Your task to perform on an android device: move an email to a new category in the gmail app Image 0: 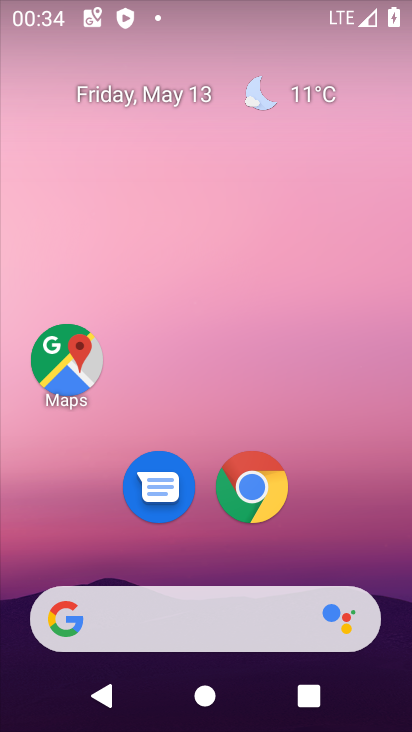
Step 0: drag from (157, 567) to (238, 61)
Your task to perform on an android device: move an email to a new category in the gmail app Image 1: 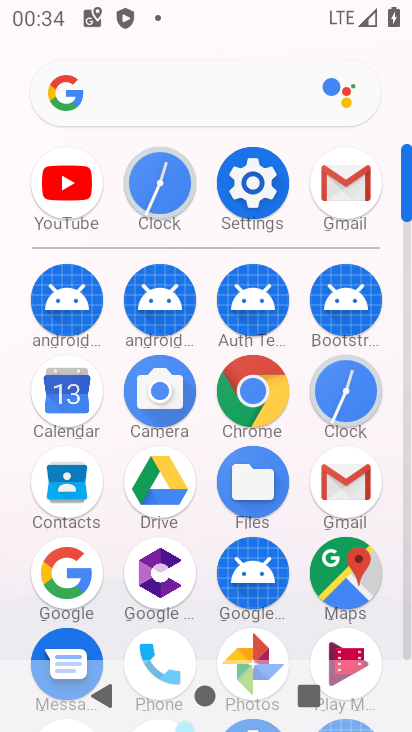
Step 1: click (334, 205)
Your task to perform on an android device: move an email to a new category in the gmail app Image 2: 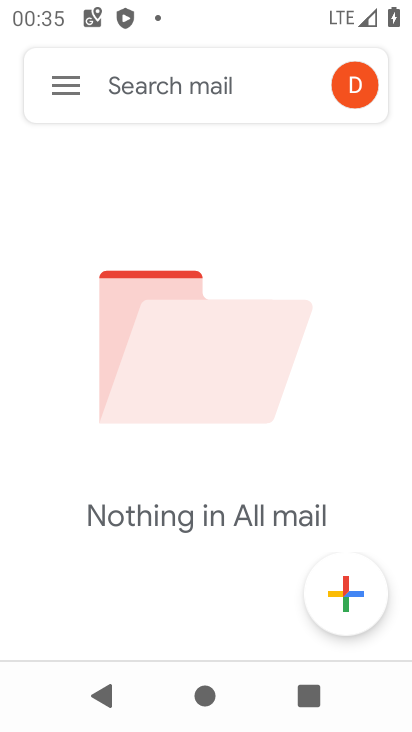
Step 2: click (61, 108)
Your task to perform on an android device: move an email to a new category in the gmail app Image 3: 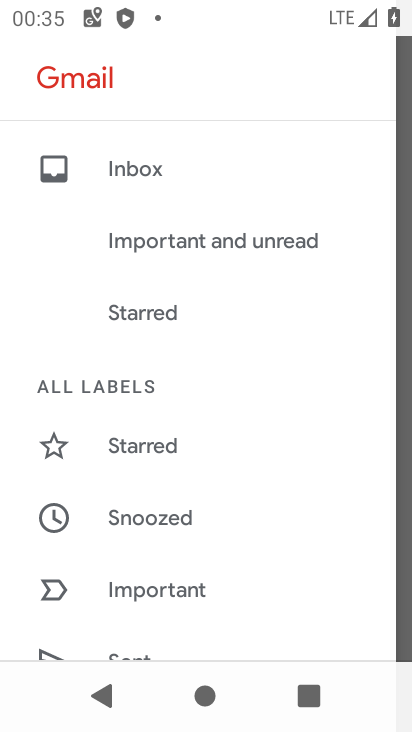
Step 3: click (233, 172)
Your task to perform on an android device: move an email to a new category in the gmail app Image 4: 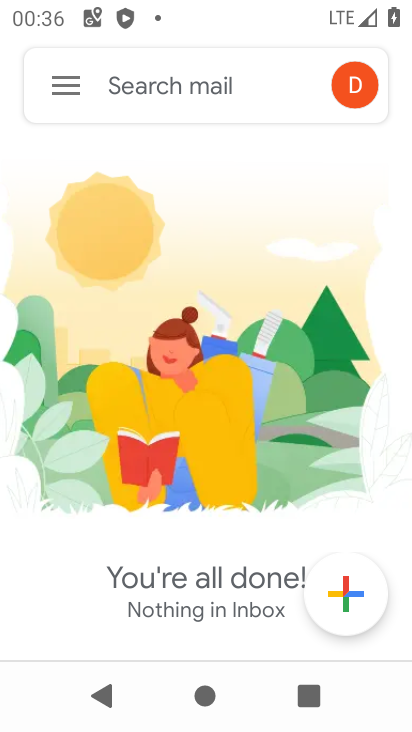
Step 4: task complete